Your task to perform on an android device: Open privacy settings Image 0: 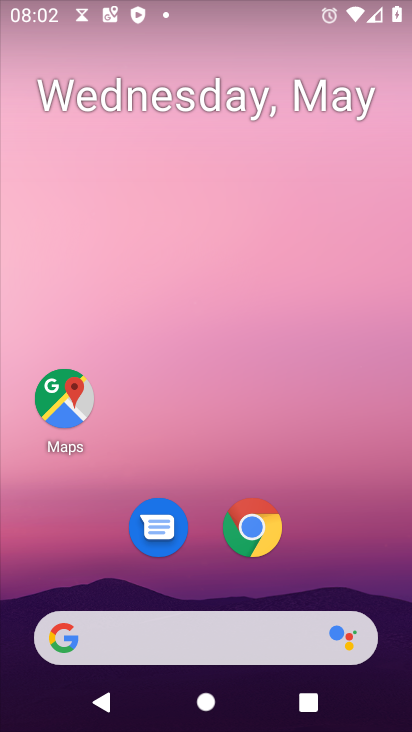
Step 0: drag from (344, 570) to (380, 69)
Your task to perform on an android device: Open privacy settings Image 1: 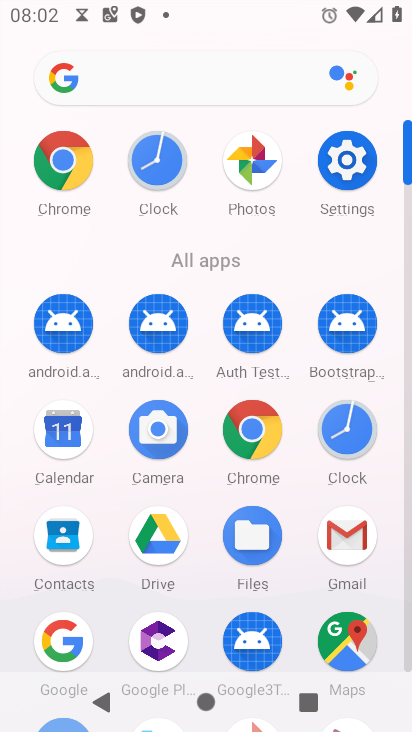
Step 1: click (356, 166)
Your task to perform on an android device: Open privacy settings Image 2: 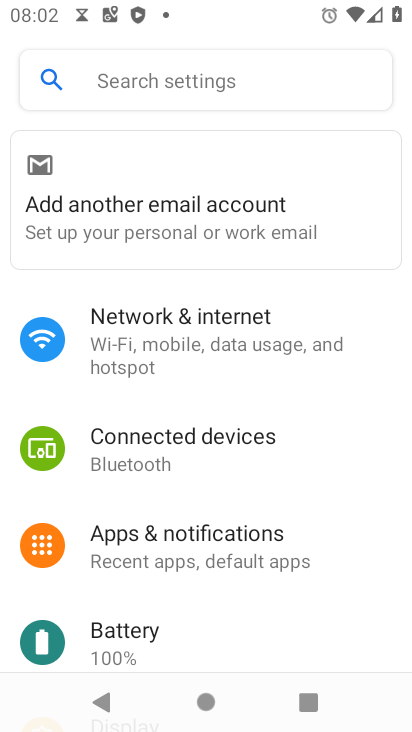
Step 2: drag from (304, 629) to (321, 210)
Your task to perform on an android device: Open privacy settings Image 3: 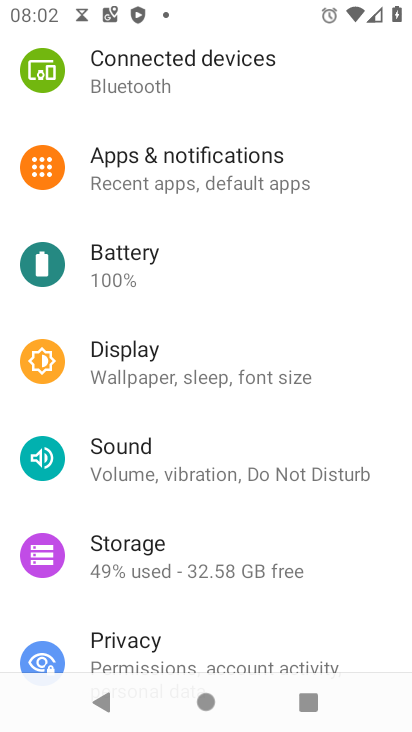
Step 3: click (126, 646)
Your task to perform on an android device: Open privacy settings Image 4: 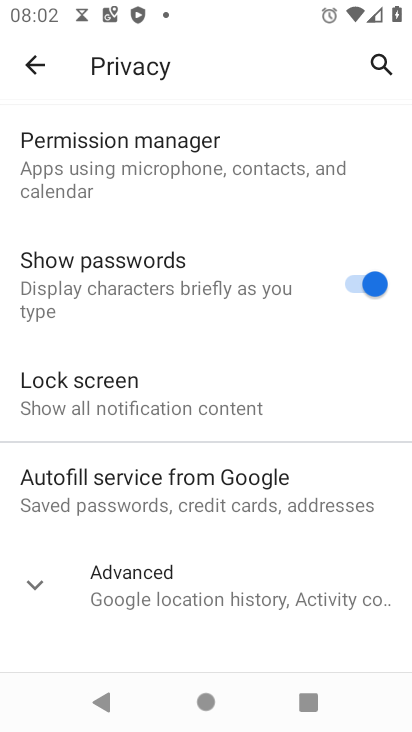
Step 4: task complete